Your task to perform on an android device: set the timer Image 0: 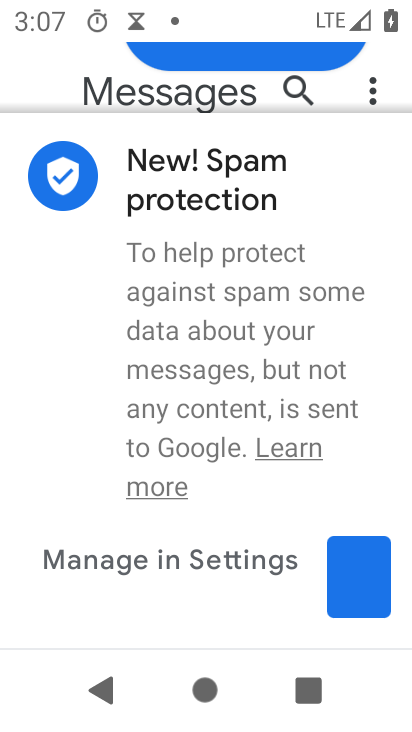
Step 0: press home button
Your task to perform on an android device: set the timer Image 1: 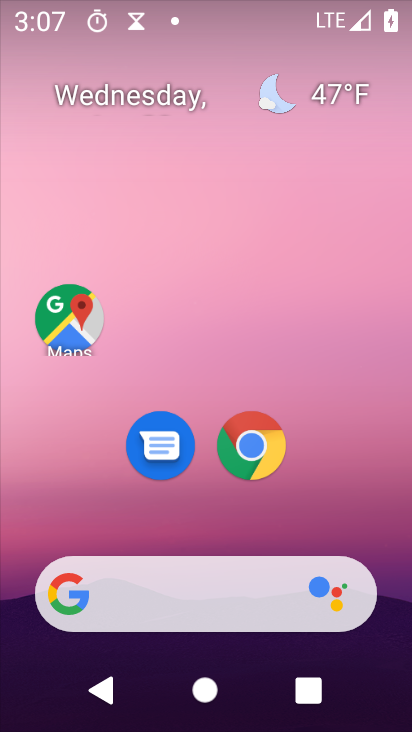
Step 1: drag from (372, 523) to (368, 2)
Your task to perform on an android device: set the timer Image 2: 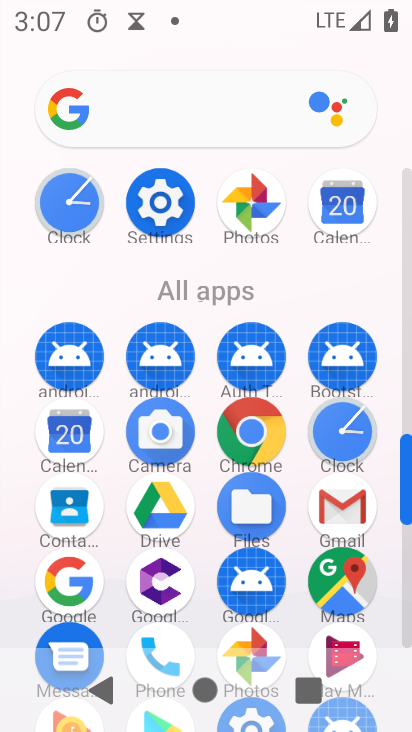
Step 2: click (69, 207)
Your task to perform on an android device: set the timer Image 3: 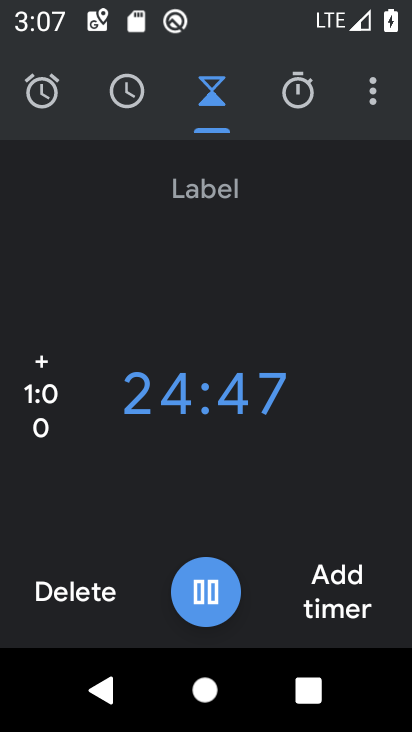
Step 3: click (331, 608)
Your task to perform on an android device: set the timer Image 4: 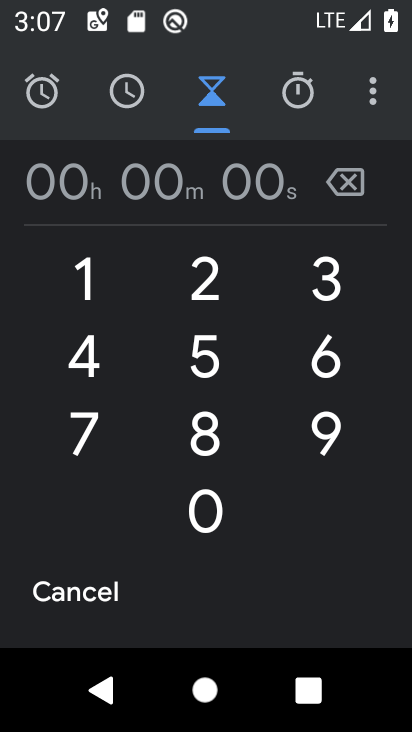
Step 4: click (200, 355)
Your task to perform on an android device: set the timer Image 5: 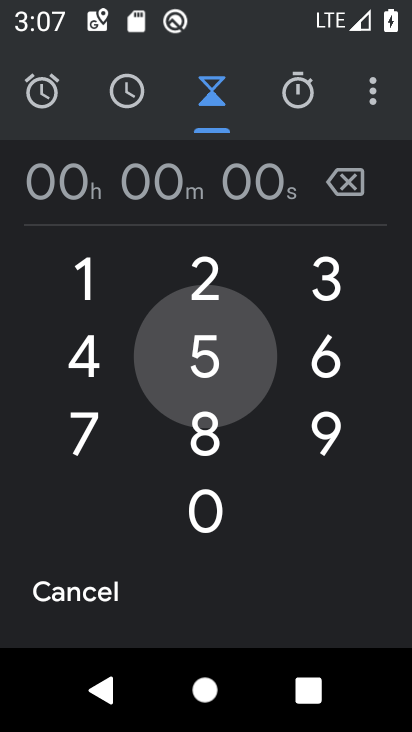
Step 5: click (204, 501)
Your task to perform on an android device: set the timer Image 6: 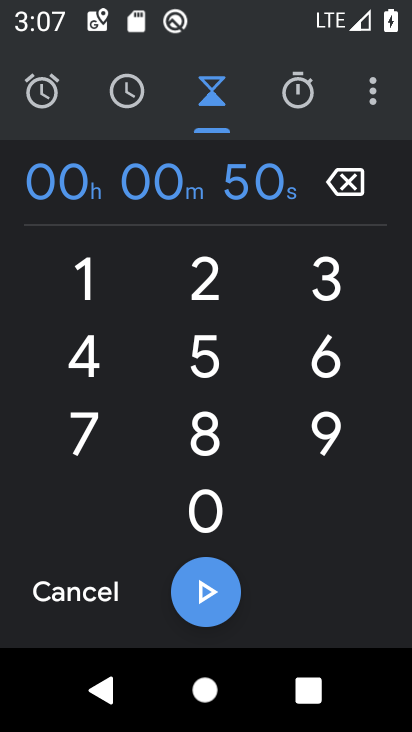
Step 6: click (213, 291)
Your task to perform on an android device: set the timer Image 7: 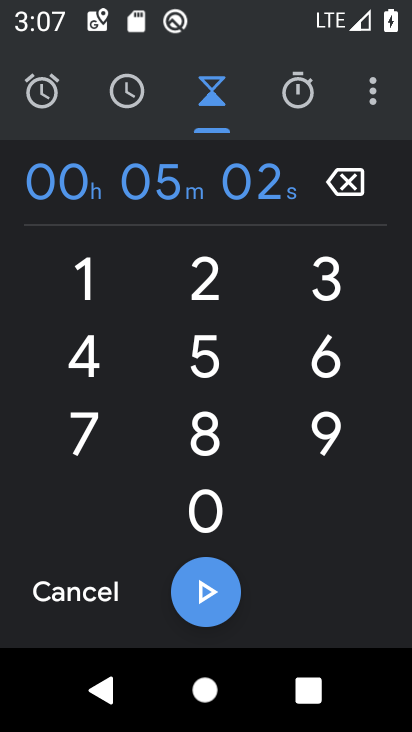
Step 7: click (211, 513)
Your task to perform on an android device: set the timer Image 8: 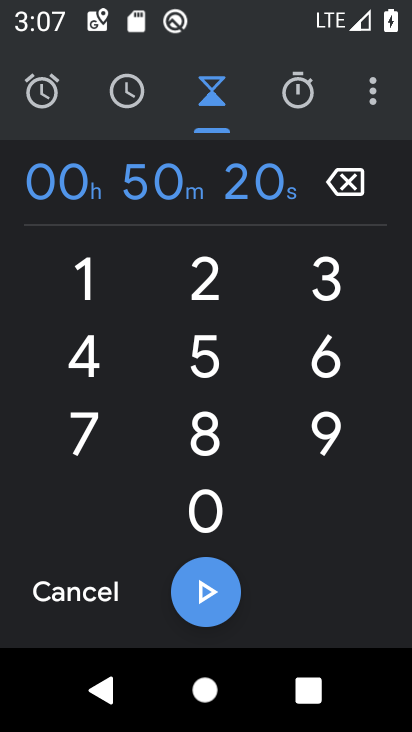
Step 8: click (207, 595)
Your task to perform on an android device: set the timer Image 9: 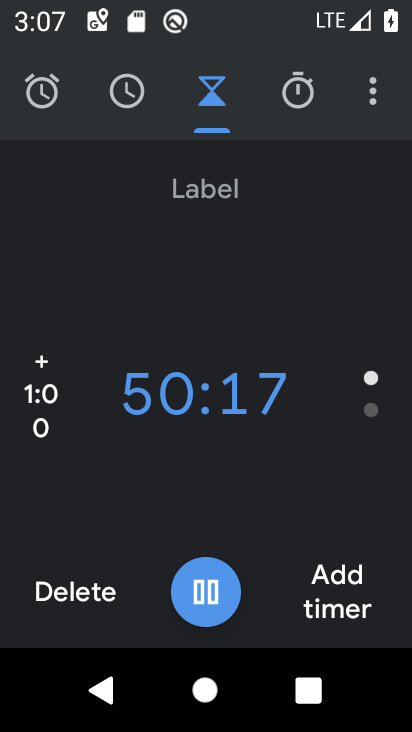
Step 9: task complete